Your task to perform on an android device: turn off location Image 0: 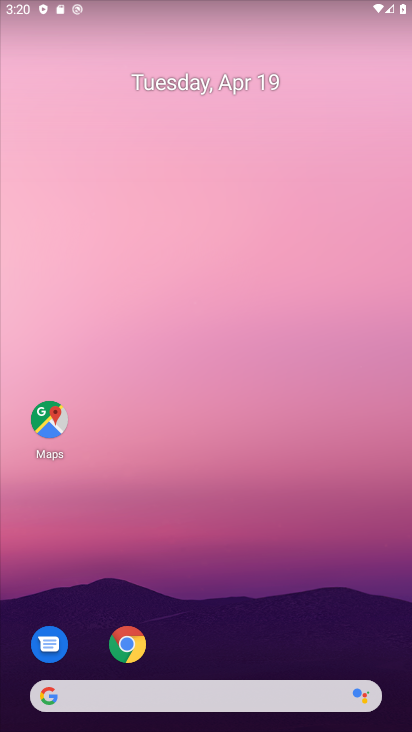
Step 0: drag from (176, 668) to (331, 135)
Your task to perform on an android device: turn off location Image 1: 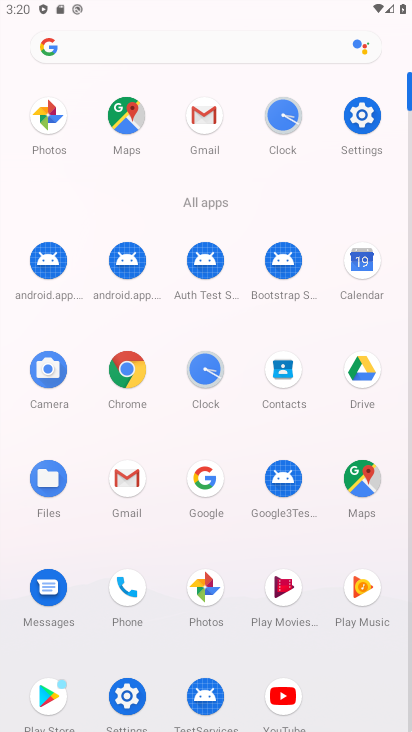
Step 1: click (124, 690)
Your task to perform on an android device: turn off location Image 2: 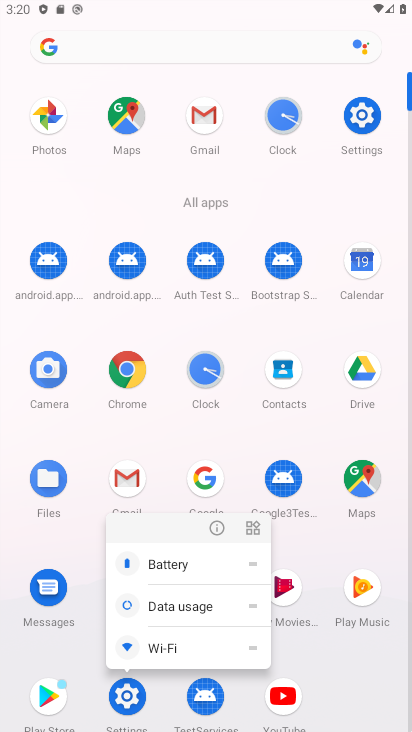
Step 2: click (117, 704)
Your task to perform on an android device: turn off location Image 3: 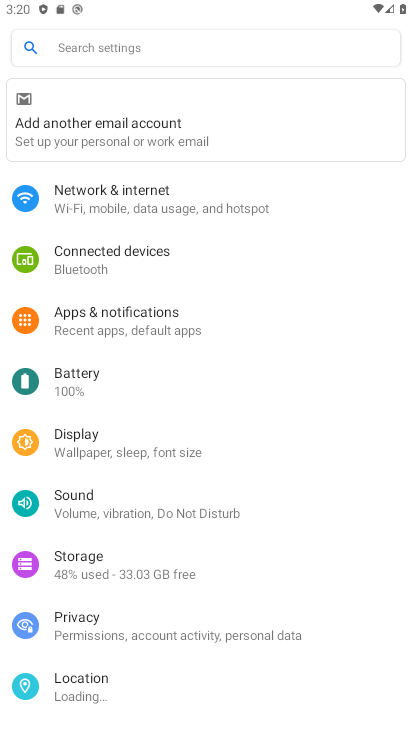
Step 3: drag from (158, 623) to (296, 223)
Your task to perform on an android device: turn off location Image 4: 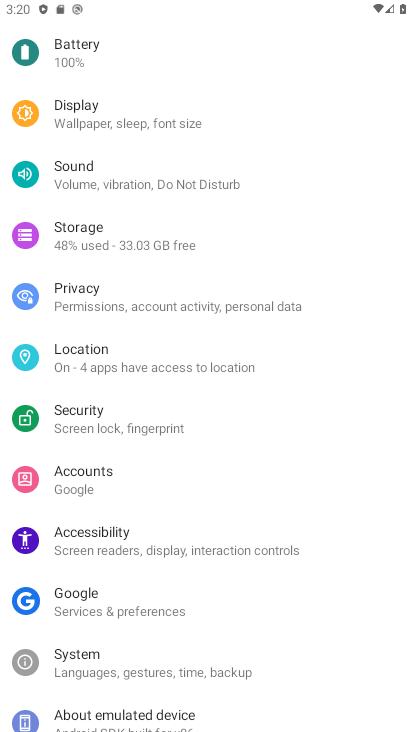
Step 4: click (147, 369)
Your task to perform on an android device: turn off location Image 5: 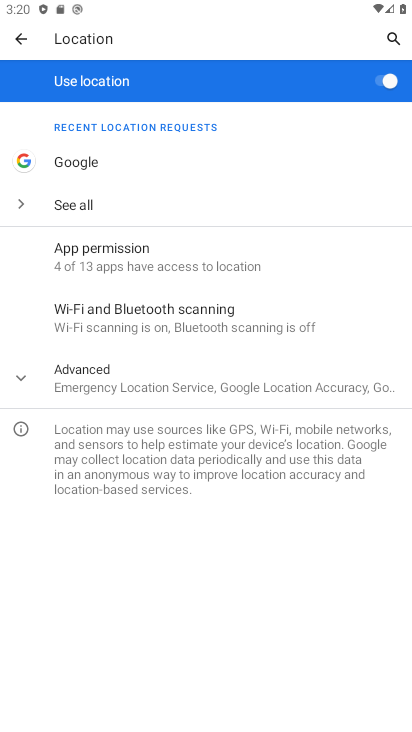
Step 5: click (385, 86)
Your task to perform on an android device: turn off location Image 6: 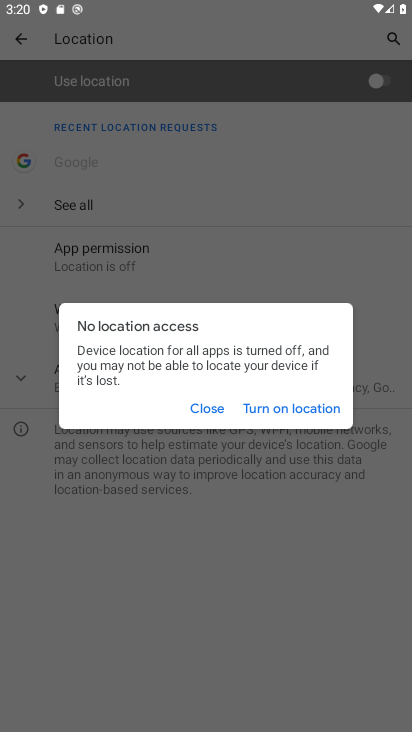
Step 6: task complete